Your task to perform on an android device: check data usage Image 0: 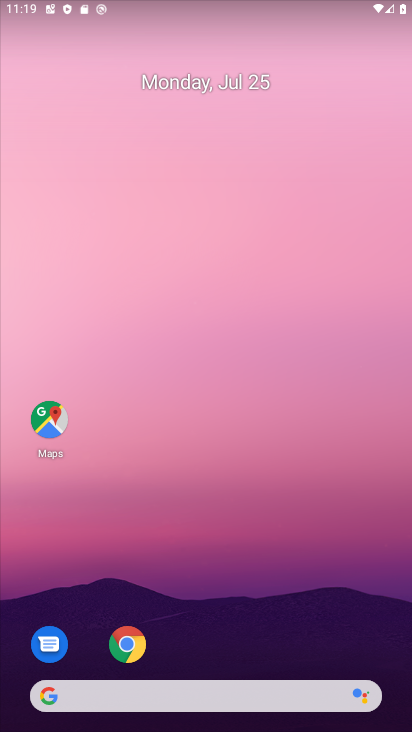
Step 0: drag from (293, 606) to (356, 88)
Your task to perform on an android device: check data usage Image 1: 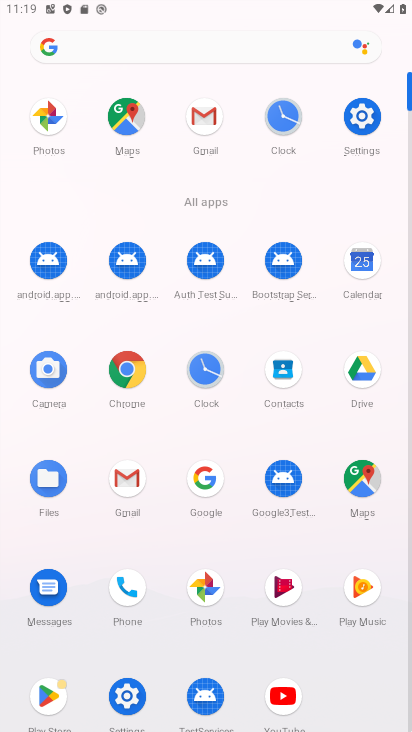
Step 1: click (364, 129)
Your task to perform on an android device: check data usage Image 2: 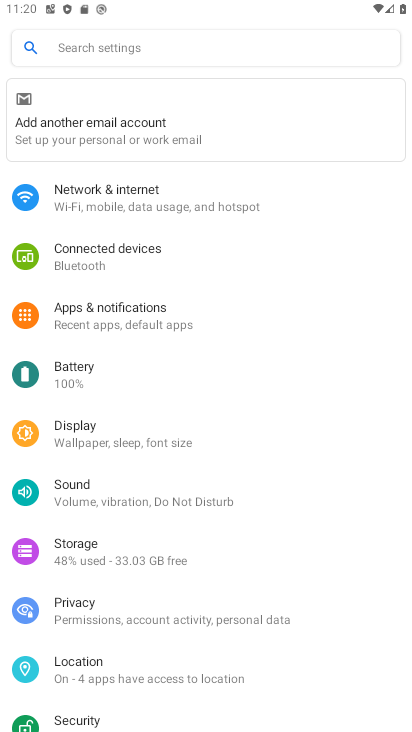
Step 2: click (136, 211)
Your task to perform on an android device: check data usage Image 3: 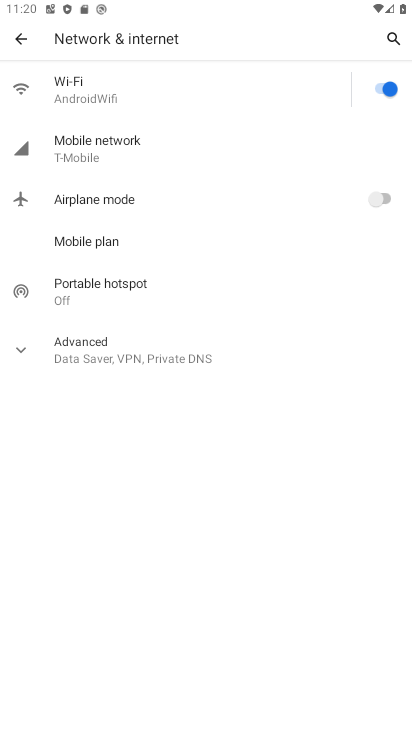
Step 3: click (124, 159)
Your task to perform on an android device: check data usage Image 4: 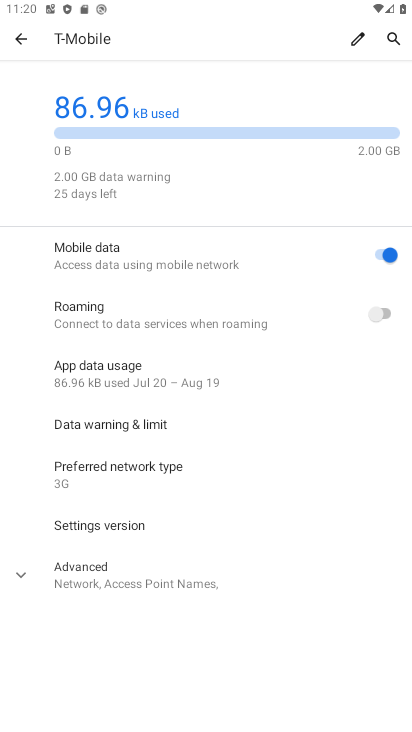
Step 4: click (145, 373)
Your task to perform on an android device: check data usage Image 5: 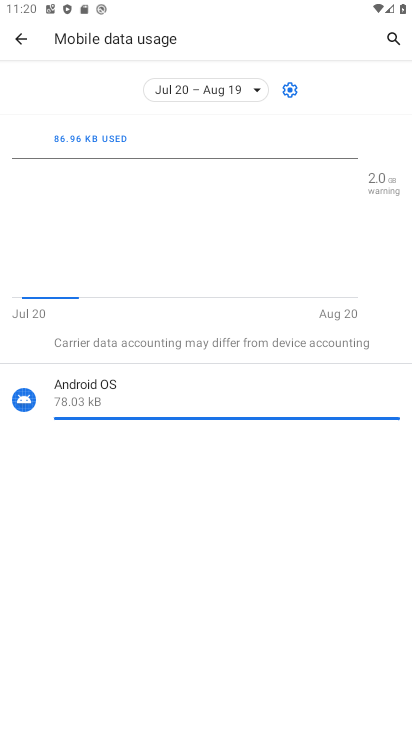
Step 5: task complete